Your task to perform on an android device: turn off picture-in-picture Image 0: 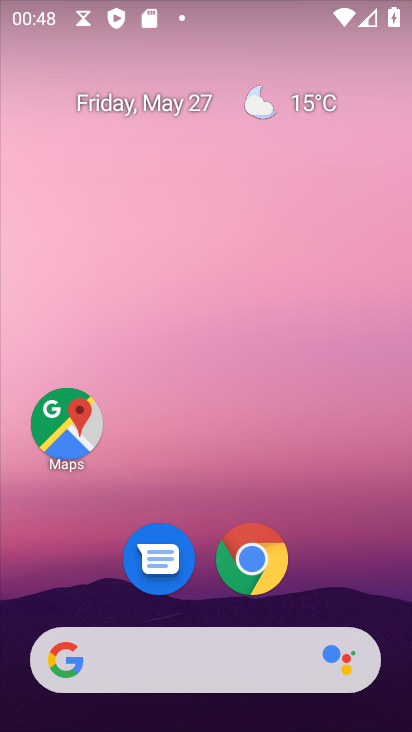
Step 0: drag from (243, 117) to (229, 54)
Your task to perform on an android device: turn off picture-in-picture Image 1: 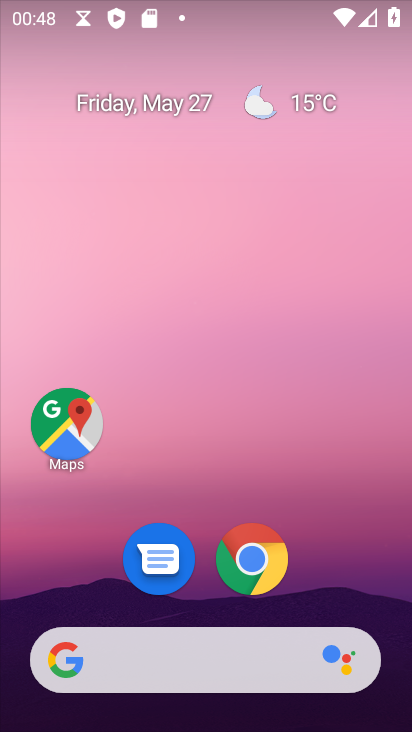
Step 1: drag from (351, 568) to (179, 20)
Your task to perform on an android device: turn off picture-in-picture Image 2: 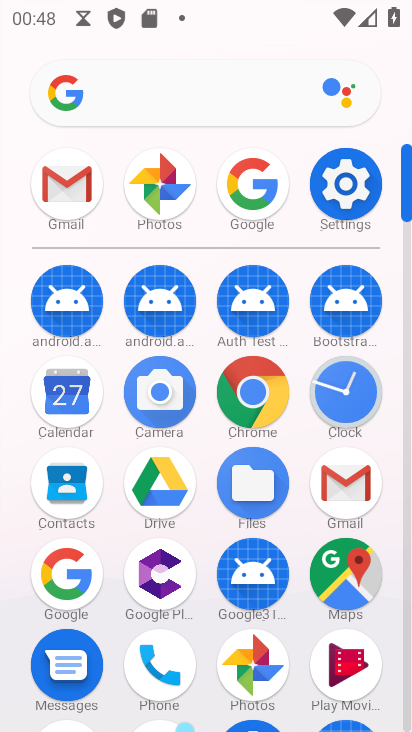
Step 2: click (316, 196)
Your task to perform on an android device: turn off picture-in-picture Image 3: 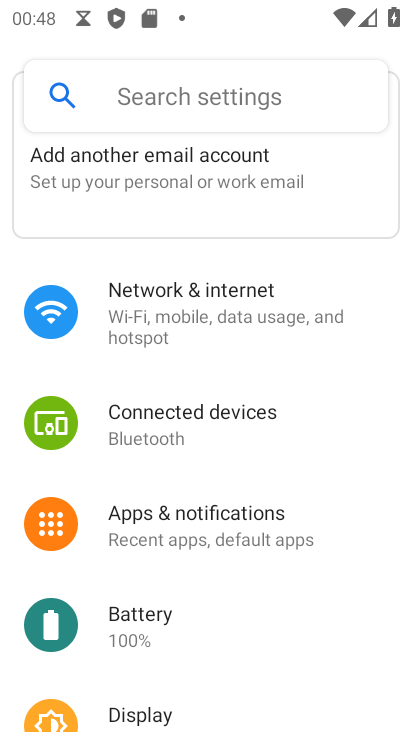
Step 3: click (238, 522)
Your task to perform on an android device: turn off picture-in-picture Image 4: 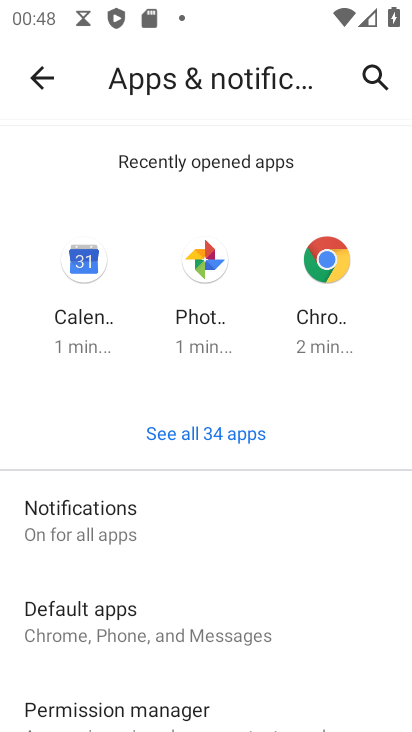
Step 4: click (204, 518)
Your task to perform on an android device: turn off picture-in-picture Image 5: 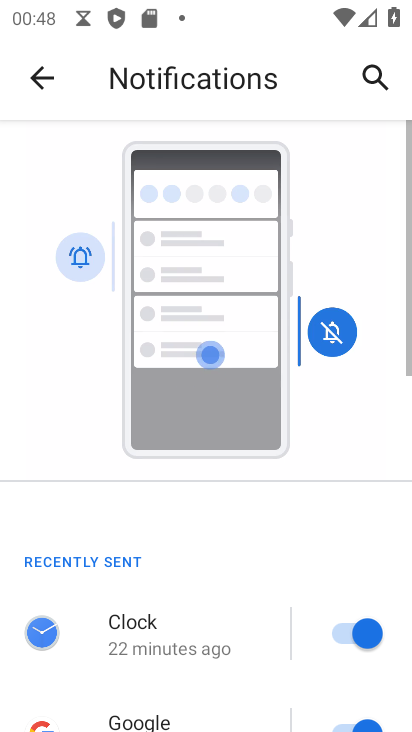
Step 5: drag from (240, 618) to (270, 37)
Your task to perform on an android device: turn off picture-in-picture Image 6: 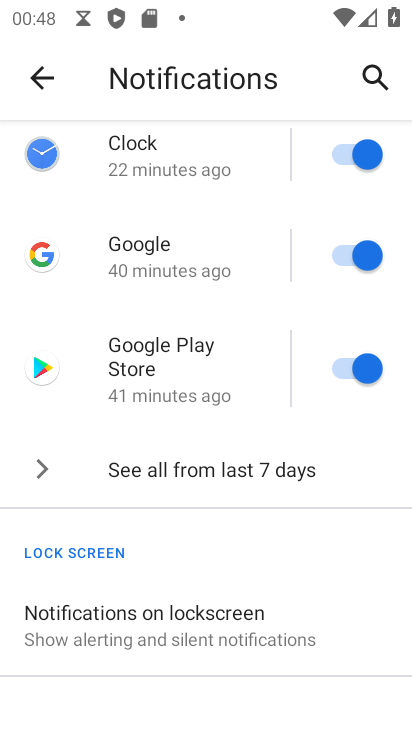
Step 6: drag from (220, 514) to (251, 36)
Your task to perform on an android device: turn off picture-in-picture Image 7: 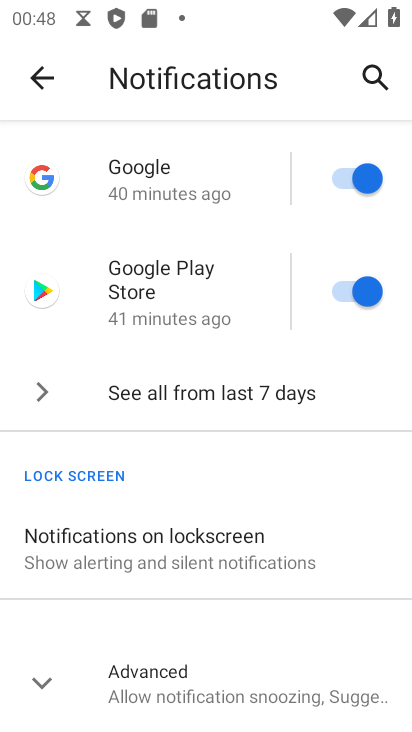
Step 7: drag from (234, 449) to (235, 683)
Your task to perform on an android device: turn off picture-in-picture Image 8: 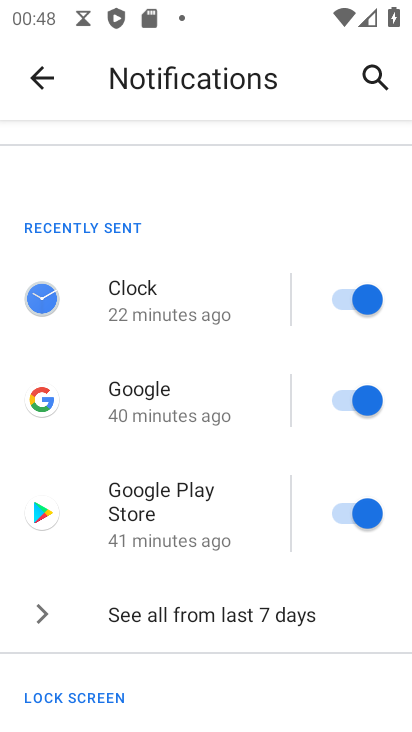
Step 8: click (46, 87)
Your task to perform on an android device: turn off picture-in-picture Image 9: 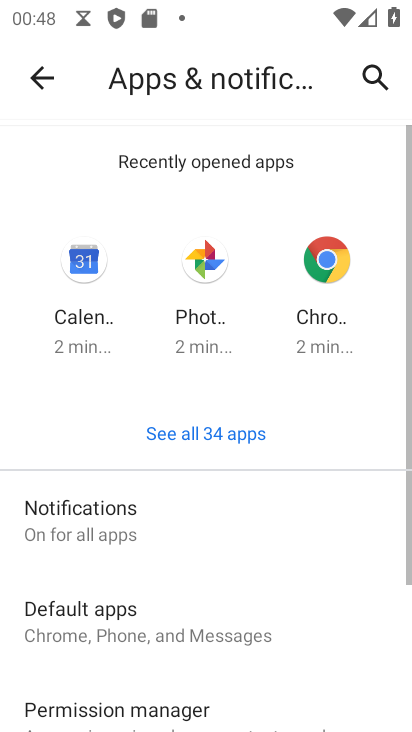
Step 9: drag from (269, 660) to (258, 196)
Your task to perform on an android device: turn off picture-in-picture Image 10: 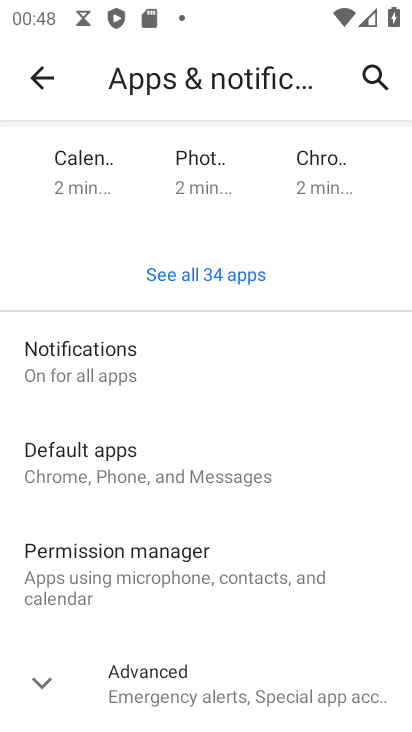
Step 10: click (258, 665)
Your task to perform on an android device: turn off picture-in-picture Image 11: 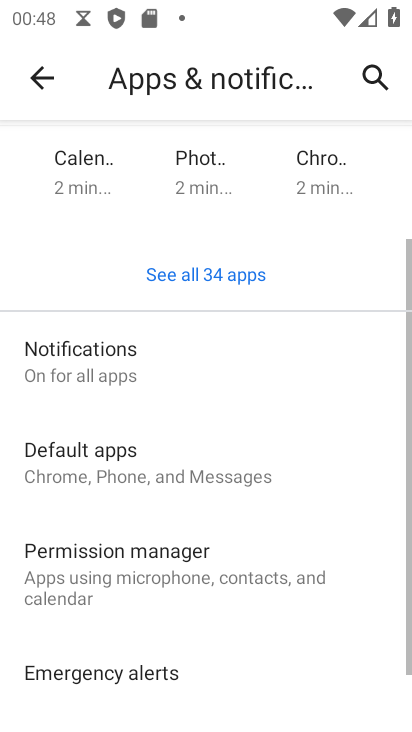
Step 11: drag from (233, 615) to (241, 44)
Your task to perform on an android device: turn off picture-in-picture Image 12: 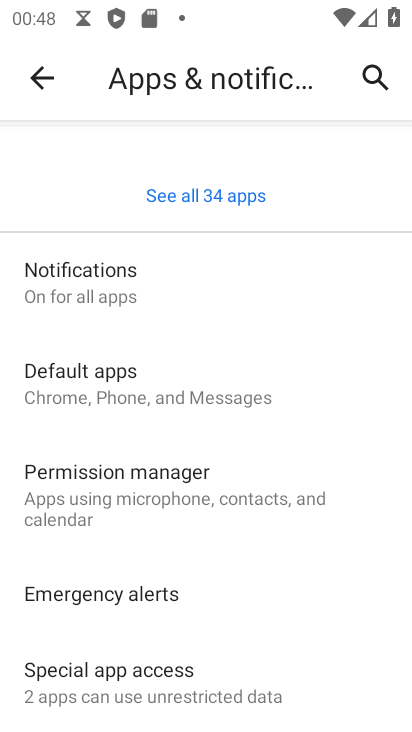
Step 12: click (222, 686)
Your task to perform on an android device: turn off picture-in-picture Image 13: 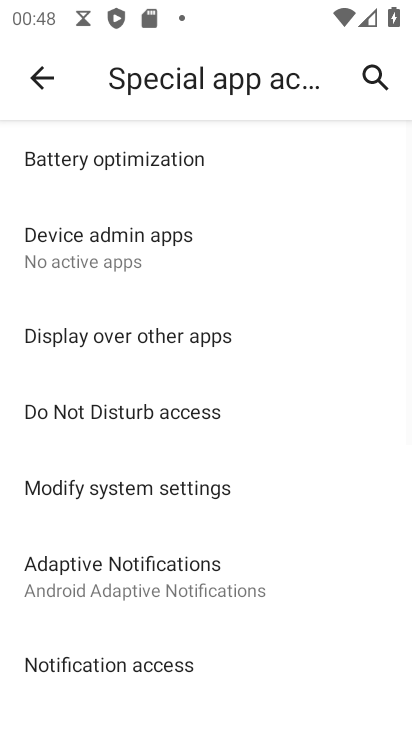
Step 13: drag from (291, 607) to (275, 188)
Your task to perform on an android device: turn off picture-in-picture Image 14: 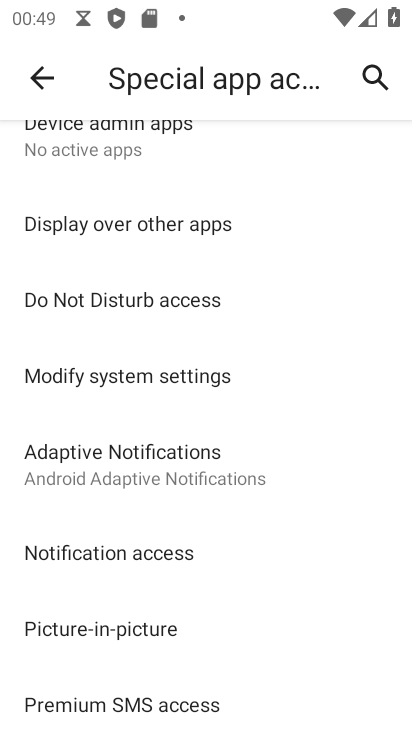
Step 14: click (163, 609)
Your task to perform on an android device: turn off picture-in-picture Image 15: 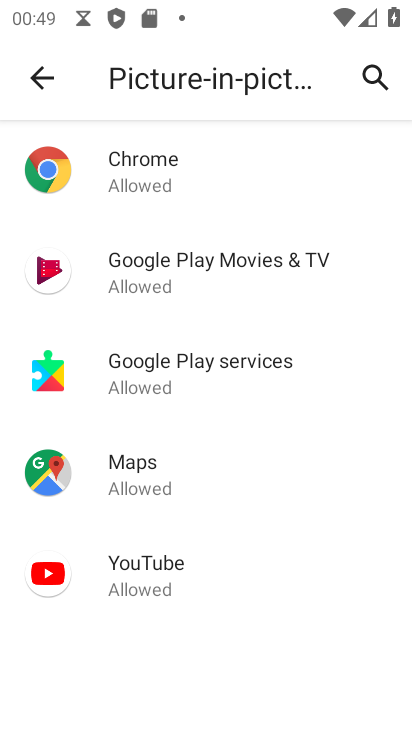
Step 15: click (178, 159)
Your task to perform on an android device: turn off picture-in-picture Image 16: 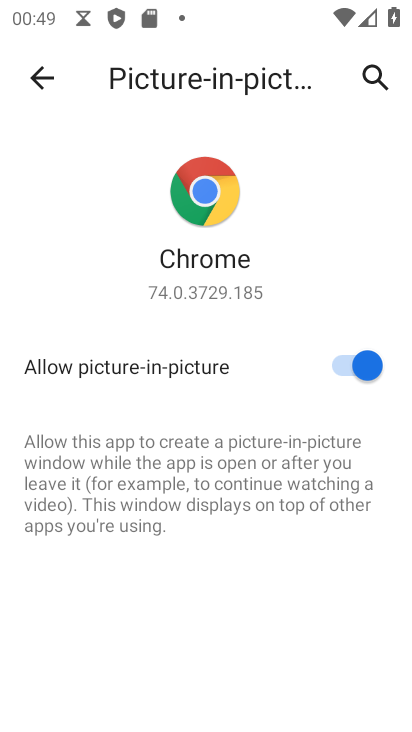
Step 16: click (352, 357)
Your task to perform on an android device: turn off picture-in-picture Image 17: 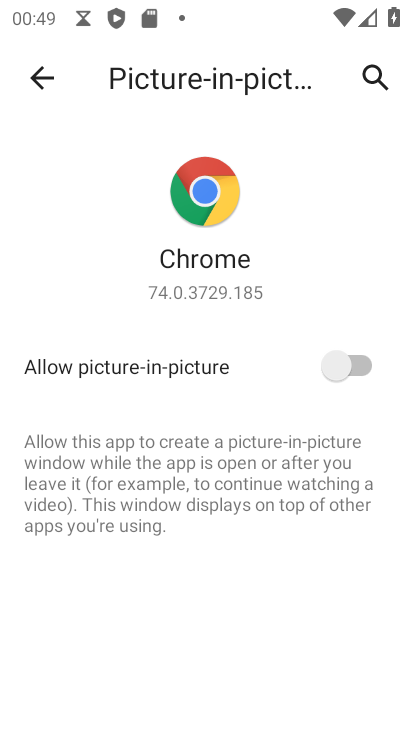
Step 17: task complete